Your task to perform on an android device: turn off notifications settings in the gmail app Image 0: 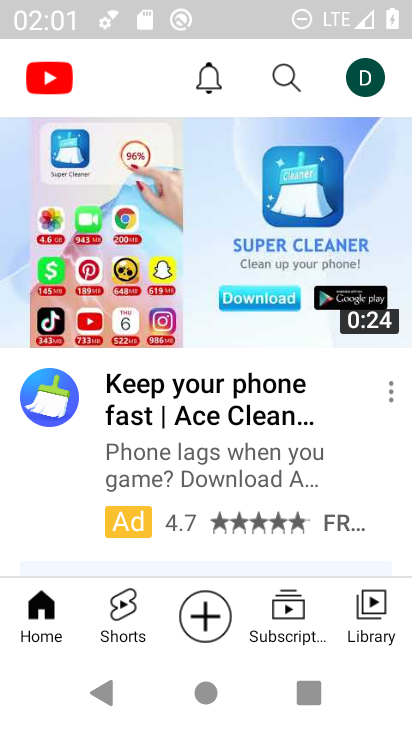
Step 0: press home button
Your task to perform on an android device: turn off notifications settings in the gmail app Image 1: 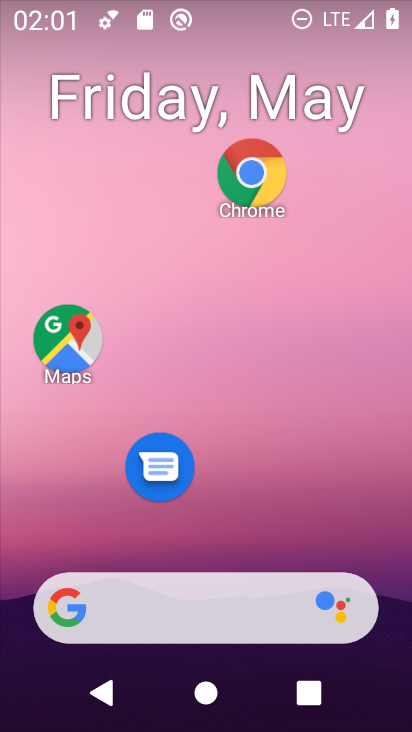
Step 1: drag from (270, 656) to (270, 176)
Your task to perform on an android device: turn off notifications settings in the gmail app Image 2: 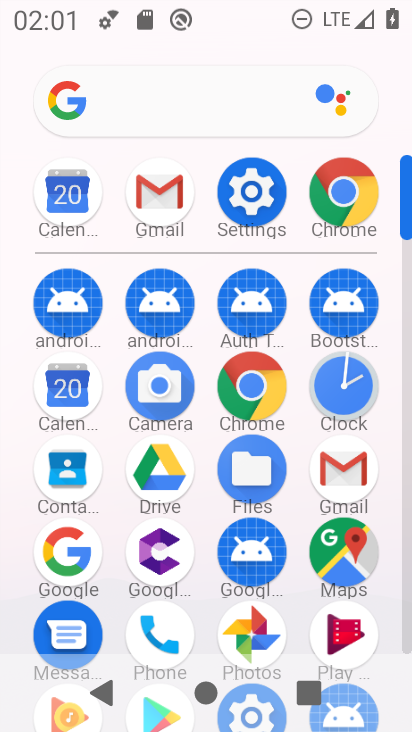
Step 2: click (183, 201)
Your task to perform on an android device: turn off notifications settings in the gmail app Image 3: 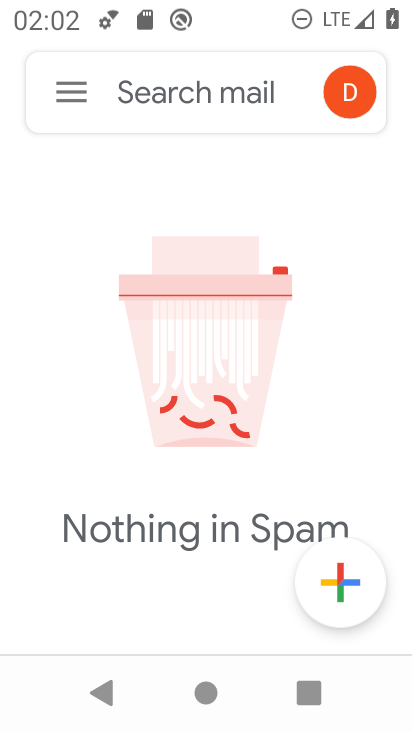
Step 3: click (52, 92)
Your task to perform on an android device: turn off notifications settings in the gmail app Image 4: 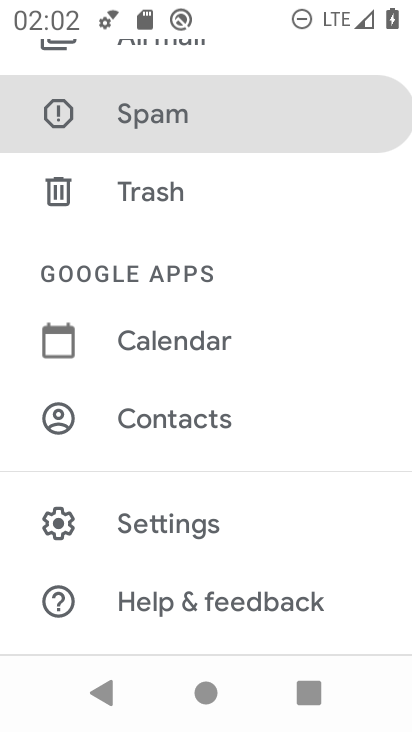
Step 4: click (220, 520)
Your task to perform on an android device: turn off notifications settings in the gmail app Image 5: 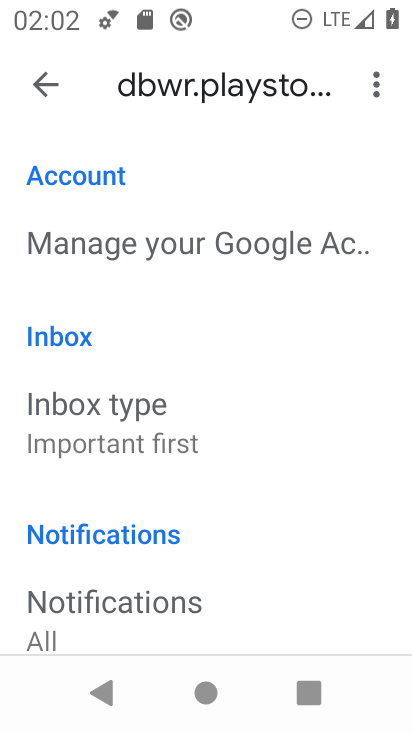
Step 5: click (151, 600)
Your task to perform on an android device: turn off notifications settings in the gmail app Image 6: 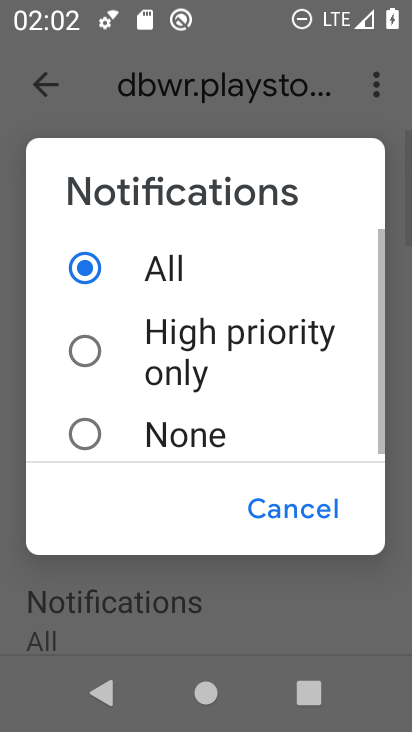
Step 6: click (181, 424)
Your task to perform on an android device: turn off notifications settings in the gmail app Image 7: 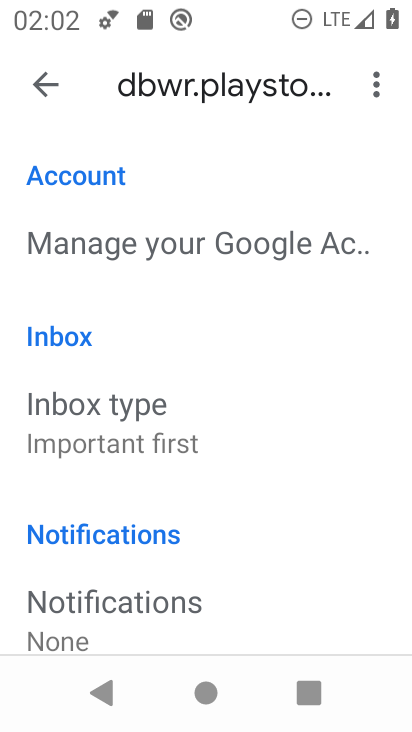
Step 7: task complete